Your task to perform on an android device: turn on improve location accuracy Image 0: 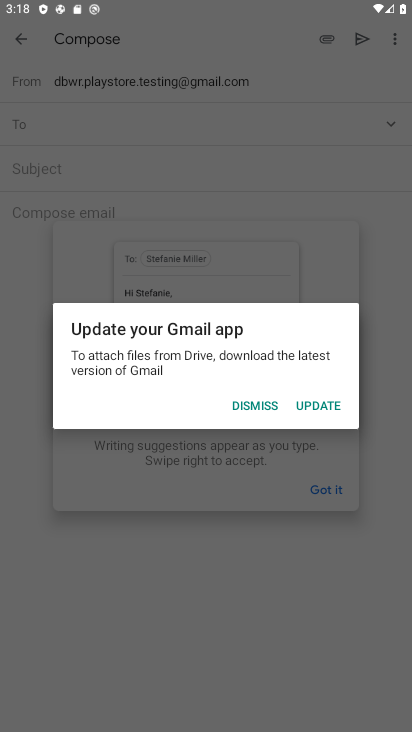
Step 0: press home button
Your task to perform on an android device: turn on improve location accuracy Image 1: 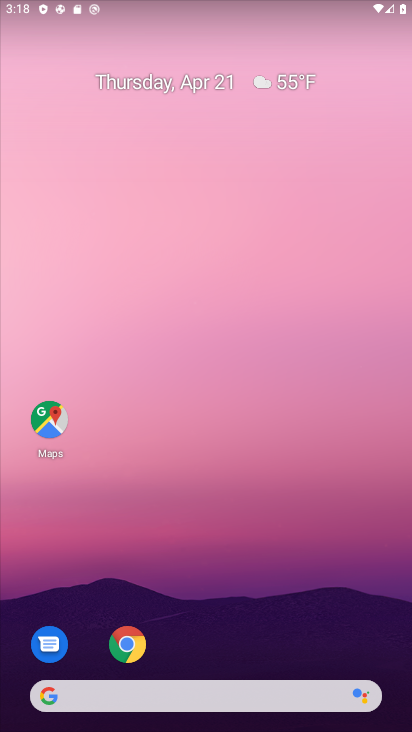
Step 1: drag from (213, 635) to (213, 90)
Your task to perform on an android device: turn on improve location accuracy Image 2: 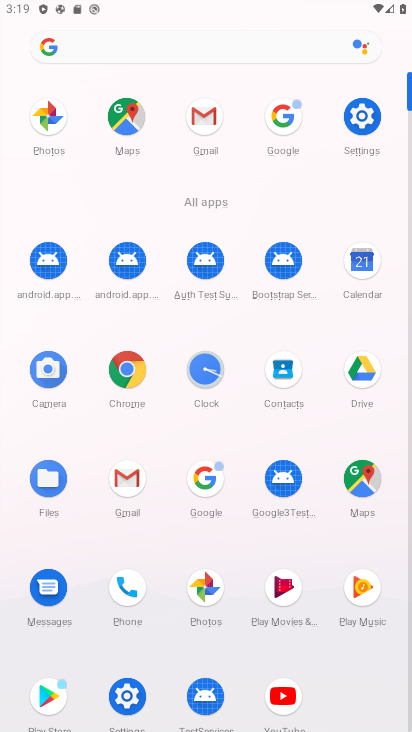
Step 2: click (364, 125)
Your task to perform on an android device: turn on improve location accuracy Image 3: 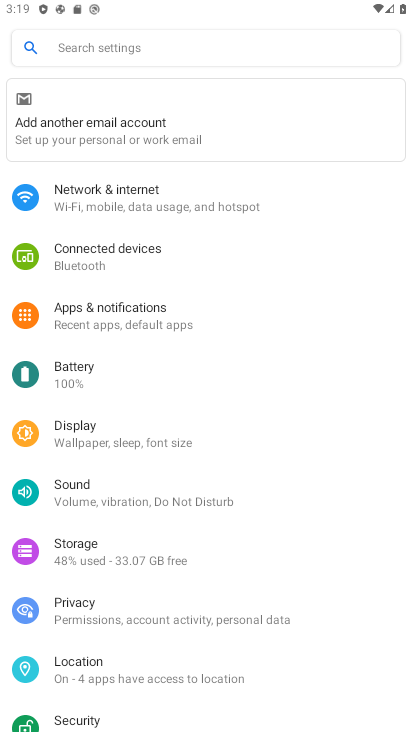
Step 3: click (100, 673)
Your task to perform on an android device: turn on improve location accuracy Image 4: 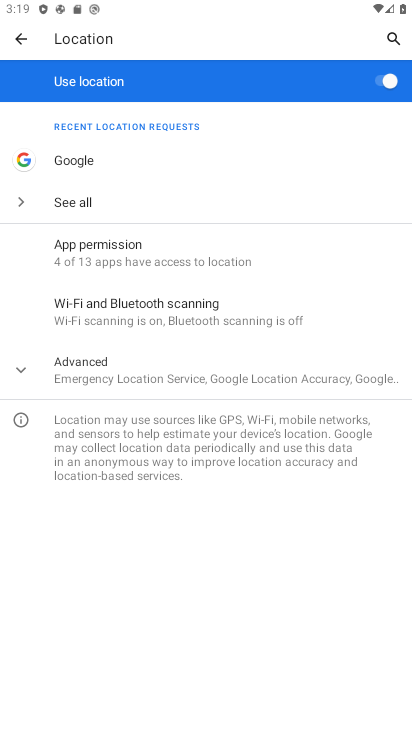
Step 4: click (119, 368)
Your task to perform on an android device: turn on improve location accuracy Image 5: 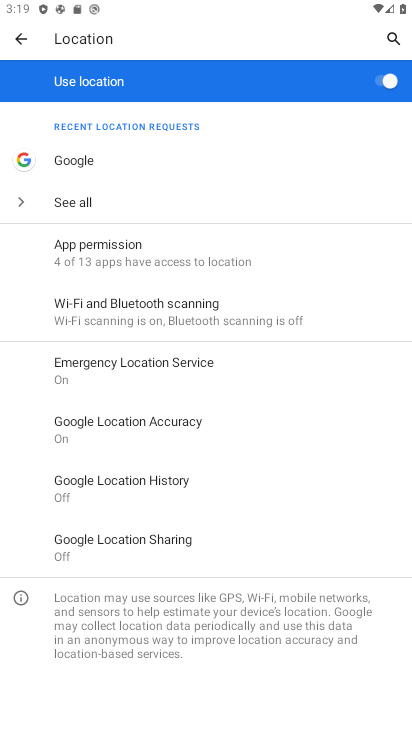
Step 5: click (144, 422)
Your task to perform on an android device: turn on improve location accuracy Image 6: 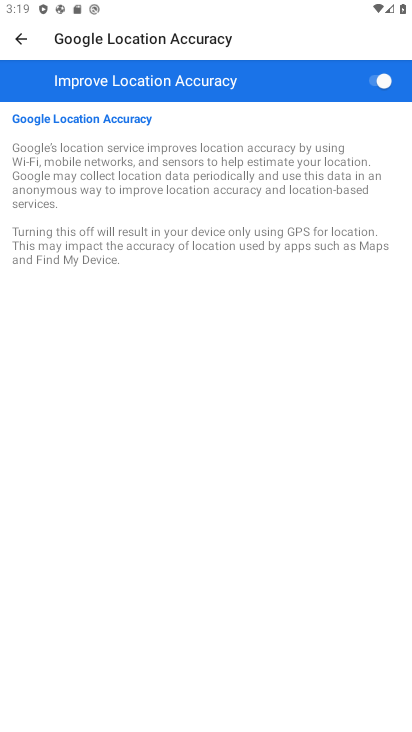
Step 6: task complete